Your task to perform on an android device: delete location history Image 0: 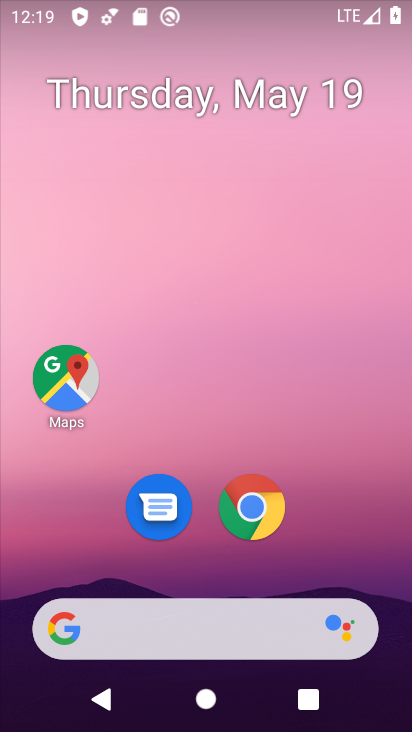
Step 0: drag from (218, 582) to (249, 334)
Your task to perform on an android device: delete location history Image 1: 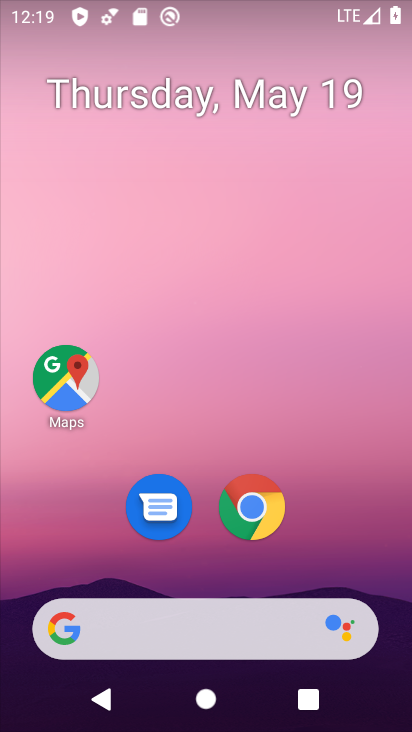
Step 1: drag from (235, 562) to (236, 195)
Your task to perform on an android device: delete location history Image 2: 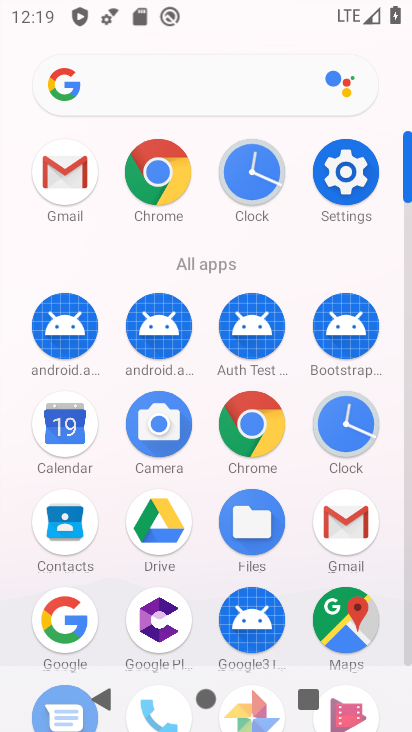
Step 2: click (348, 625)
Your task to perform on an android device: delete location history Image 3: 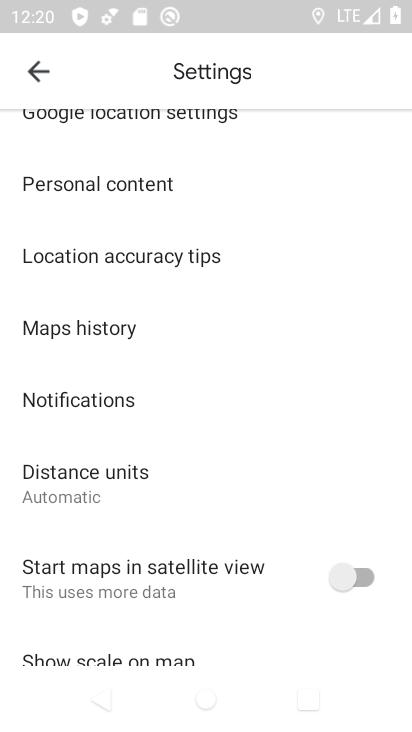
Step 3: click (38, 74)
Your task to perform on an android device: delete location history Image 4: 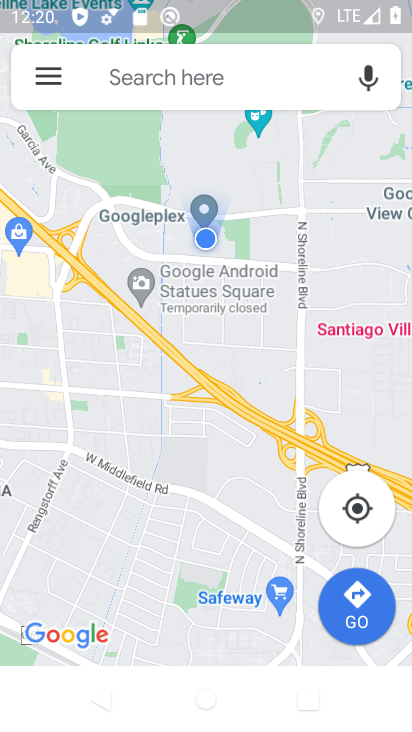
Step 4: click (41, 74)
Your task to perform on an android device: delete location history Image 5: 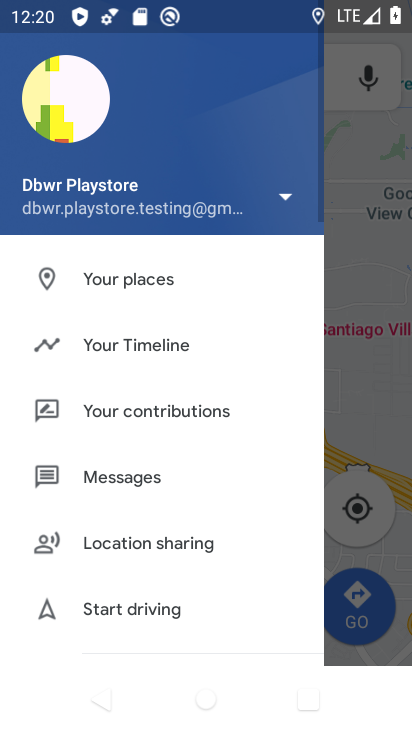
Step 5: click (120, 348)
Your task to perform on an android device: delete location history Image 6: 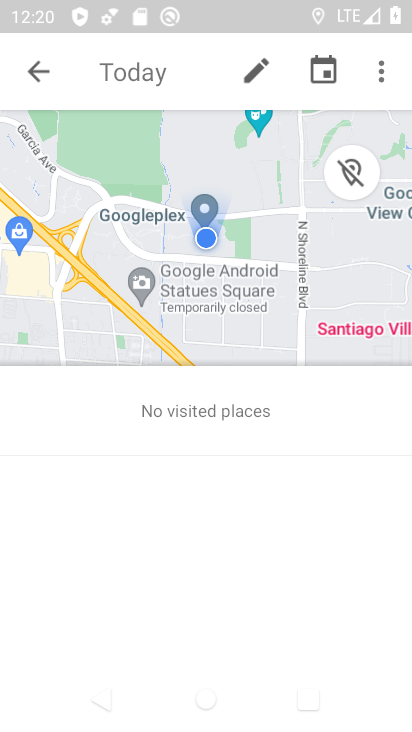
Step 6: click (371, 81)
Your task to perform on an android device: delete location history Image 7: 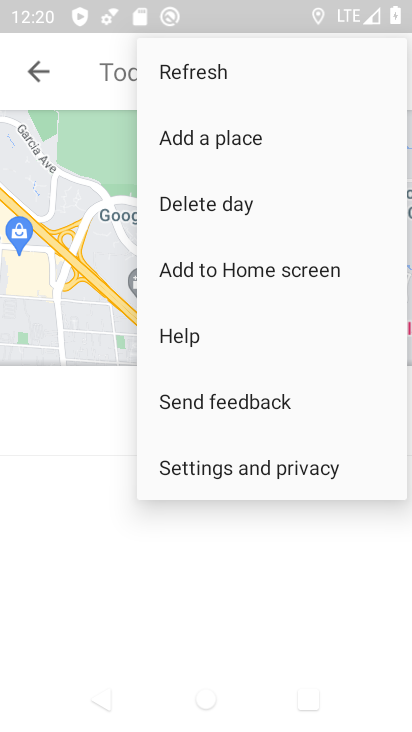
Step 7: click (238, 461)
Your task to perform on an android device: delete location history Image 8: 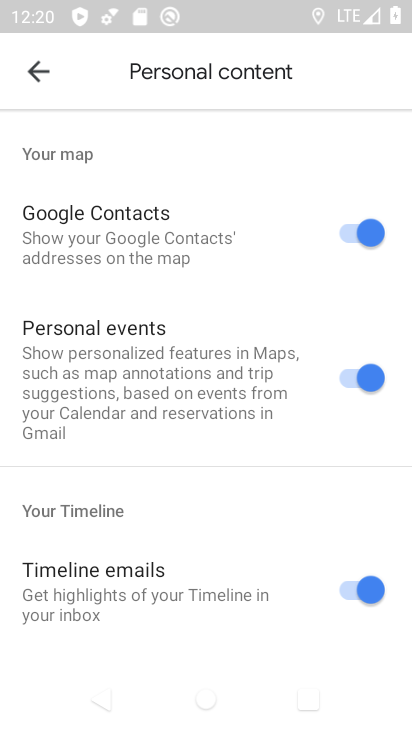
Step 8: drag from (196, 584) to (249, 292)
Your task to perform on an android device: delete location history Image 9: 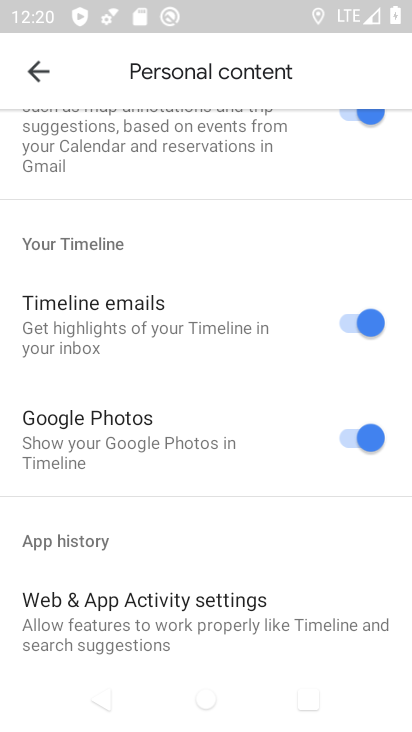
Step 9: drag from (221, 545) to (251, 296)
Your task to perform on an android device: delete location history Image 10: 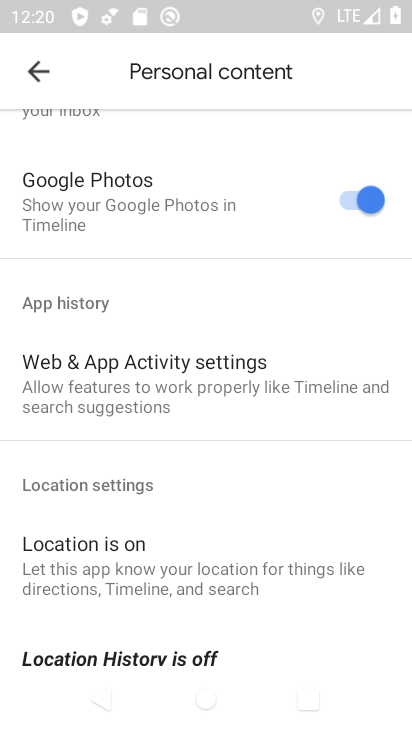
Step 10: drag from (200, 544) to (225, 298)
Your task to perform on an android device: delete location history Image 11: 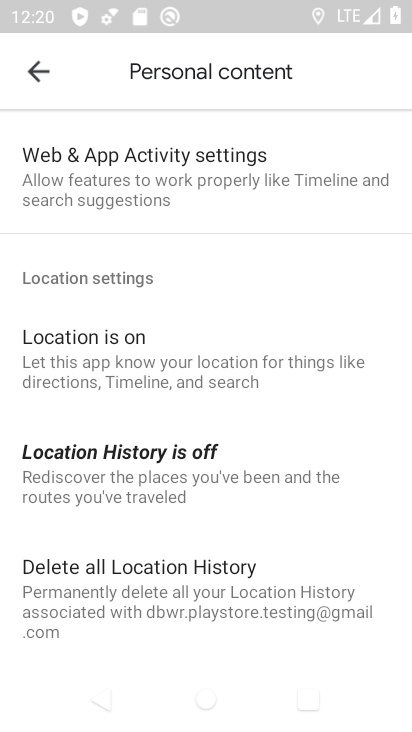
Step 11: click (183, 575)
Your task to perform on an android device: delete location history Image 12: 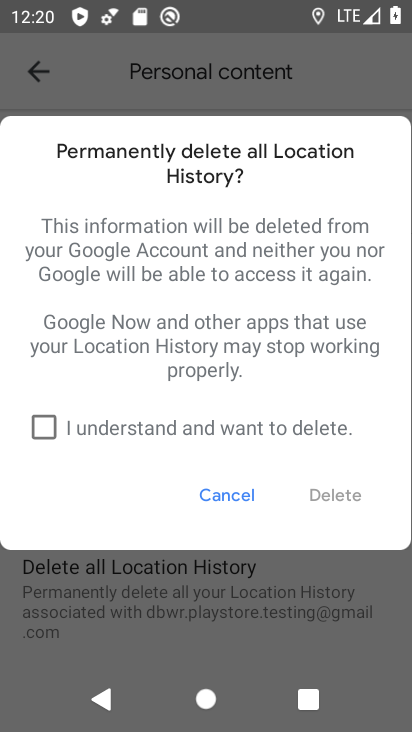
Step 12: click (172, 408)
Your task to perform on an android device: delete location history Image 13: 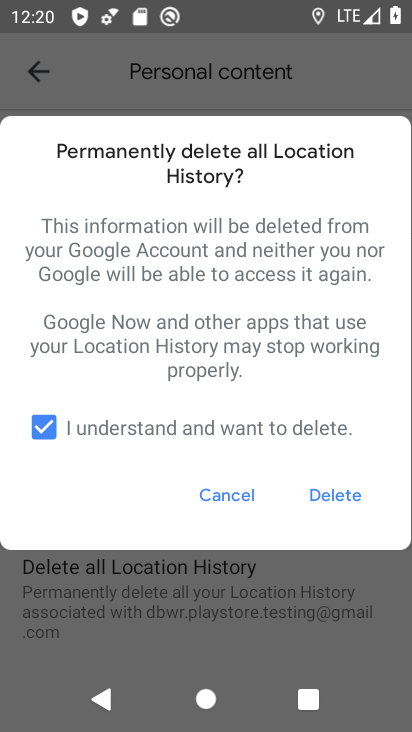
Step 13: click (349, 497)
Your task to perform on an android device: delete location history Image 14: 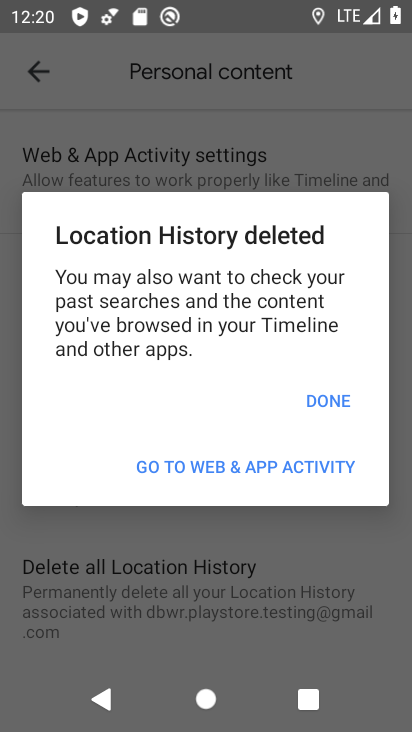
Step 14: click (312, 398)
Your task to perform on an android device: delete location history Image 15: 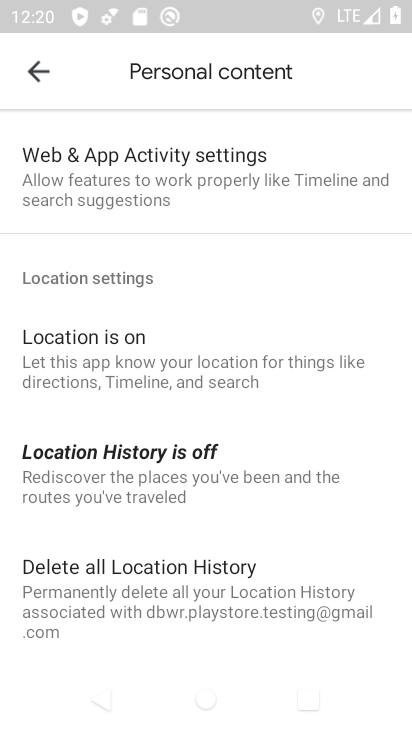
Step 15: task complete